Your task to perform on an android device: manage bookmarks in the chrome app Image 0: 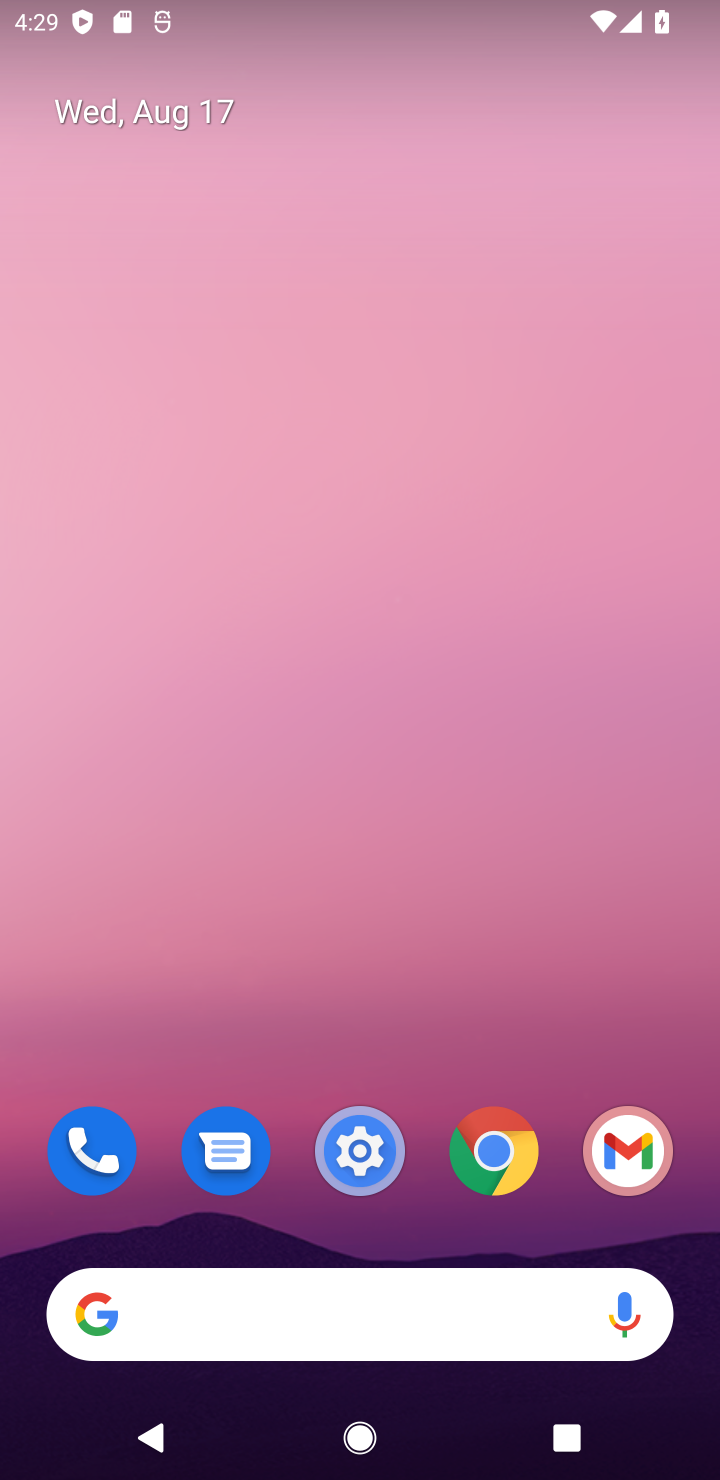
Step 0: click (471, 1169)
Your task to perform on an android device: manage bookmarks in the chrome app Image 1: 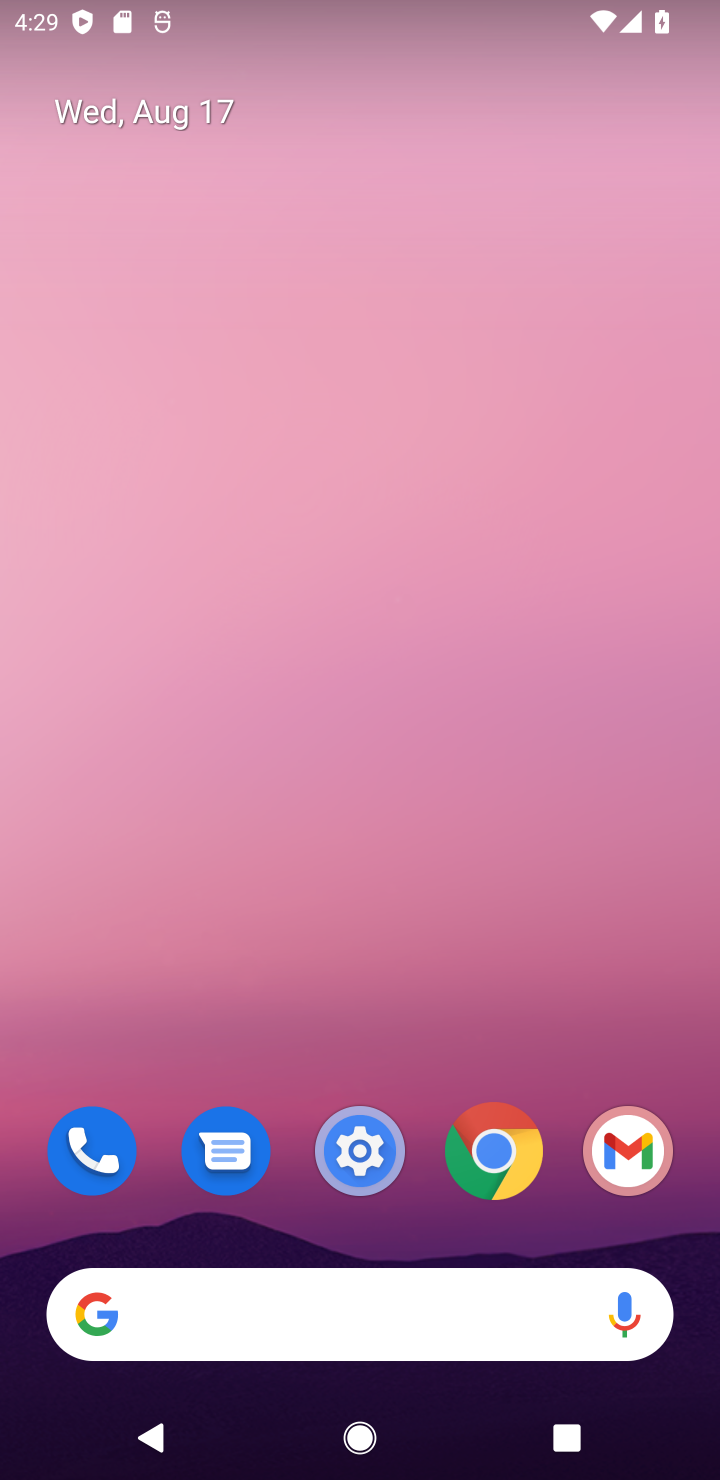
Step 1: click (512, 1117)
Your task to perform on an android device: manage bookmarks in the chrome app Image 2: 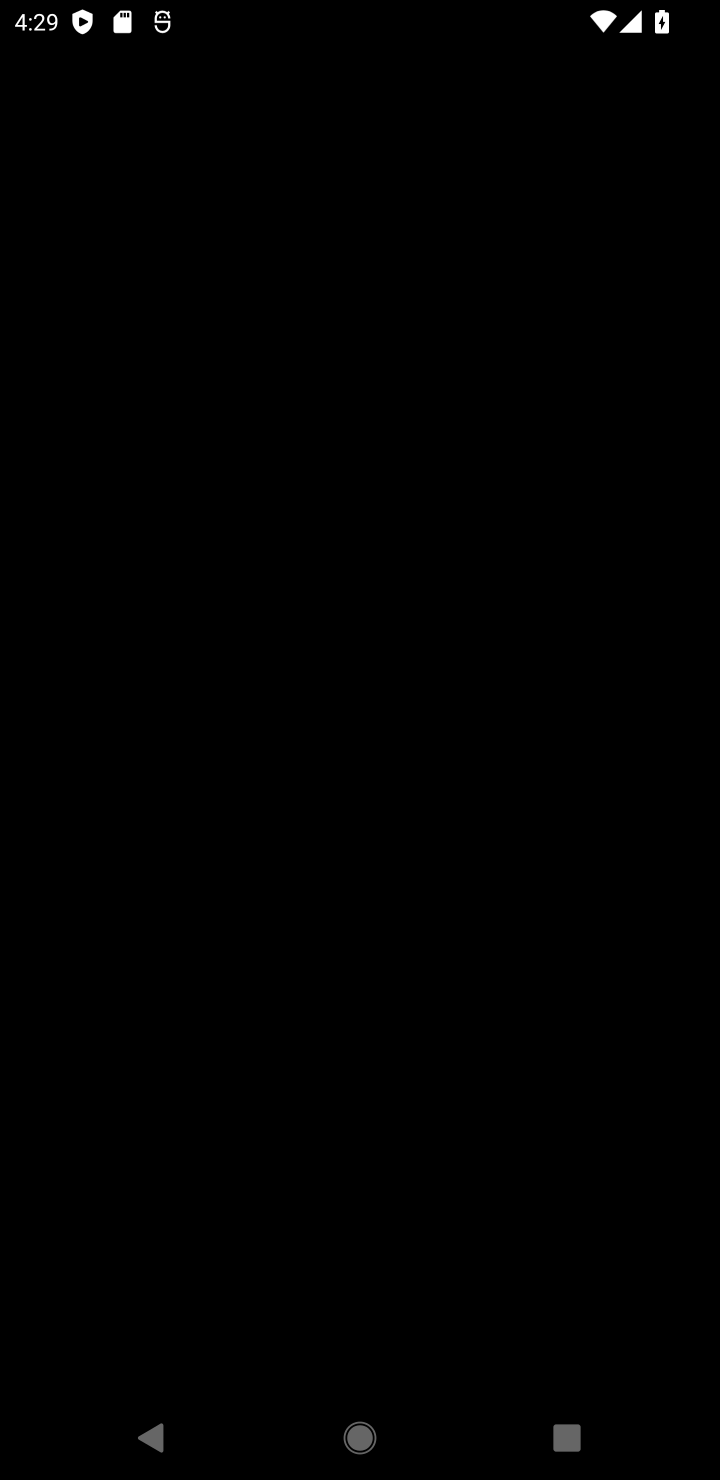
Step 2: task complete